Your task to perform on an android device: toggle data saver in the chrome app Image 0: 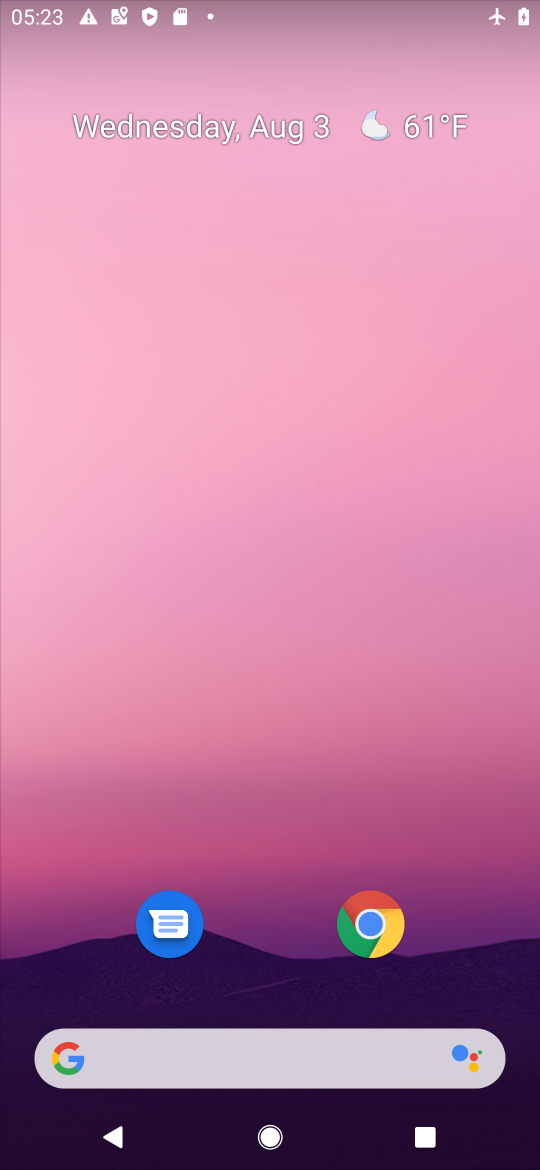
Step 0: click (365, 913)
Your task to perform on an android device: toggle data saver in the chrome app Image 1: 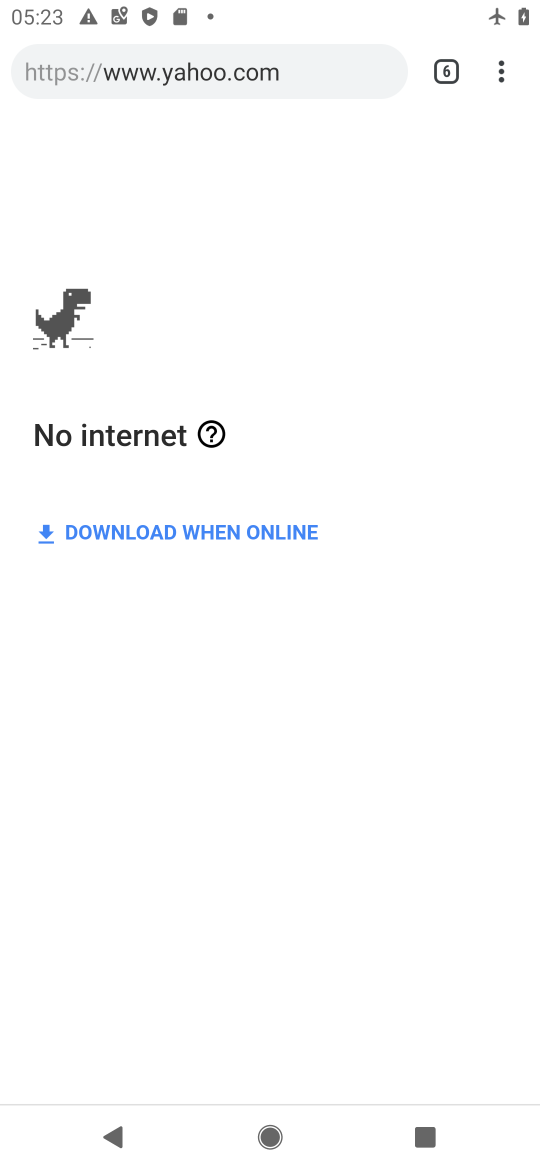
Step 1: click (495, 77)
Your task to perform on an android device: toggle data saver in the chrome app Image 2: 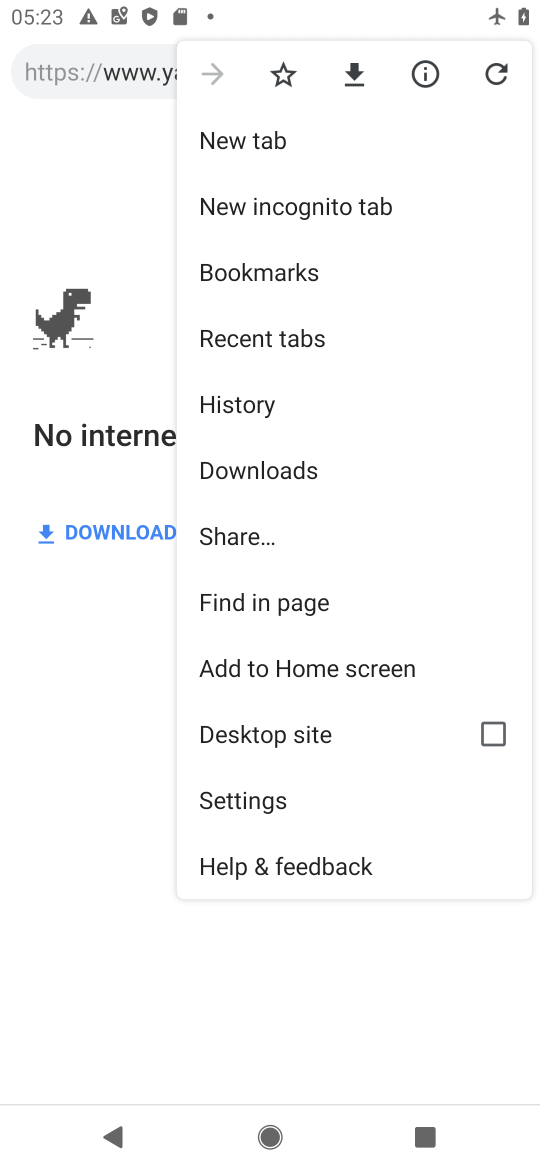
Step 2: click (273, 795)
Your task to perform on an android device: toggle data saver in the chrome app Image 3: 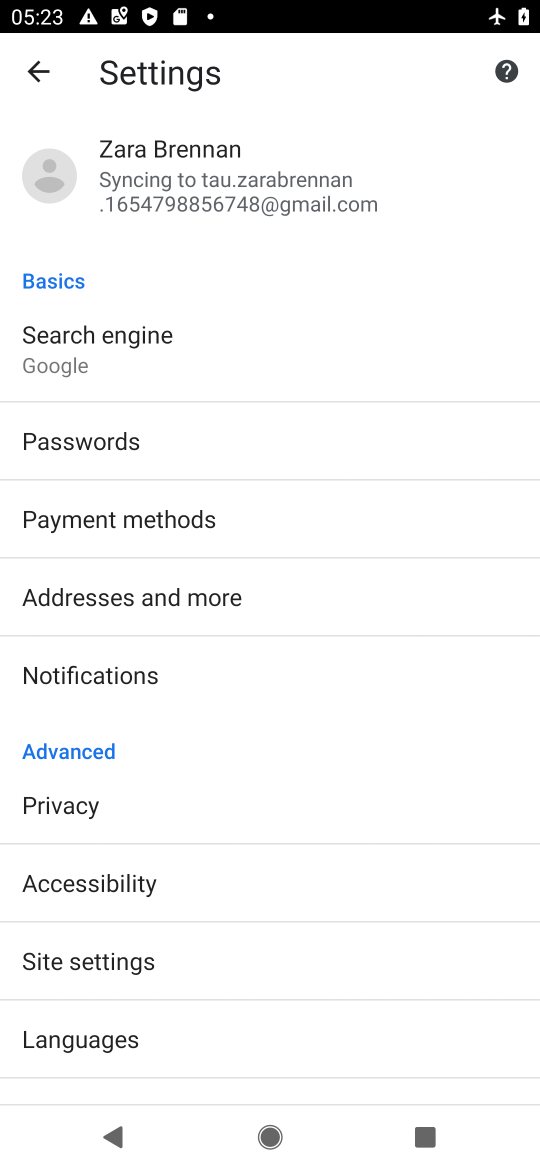
Step 3: drag from (170, 1064) to (173, 634)
Your task to perform on an android device: toggle data saver in the chrome app Image 4: 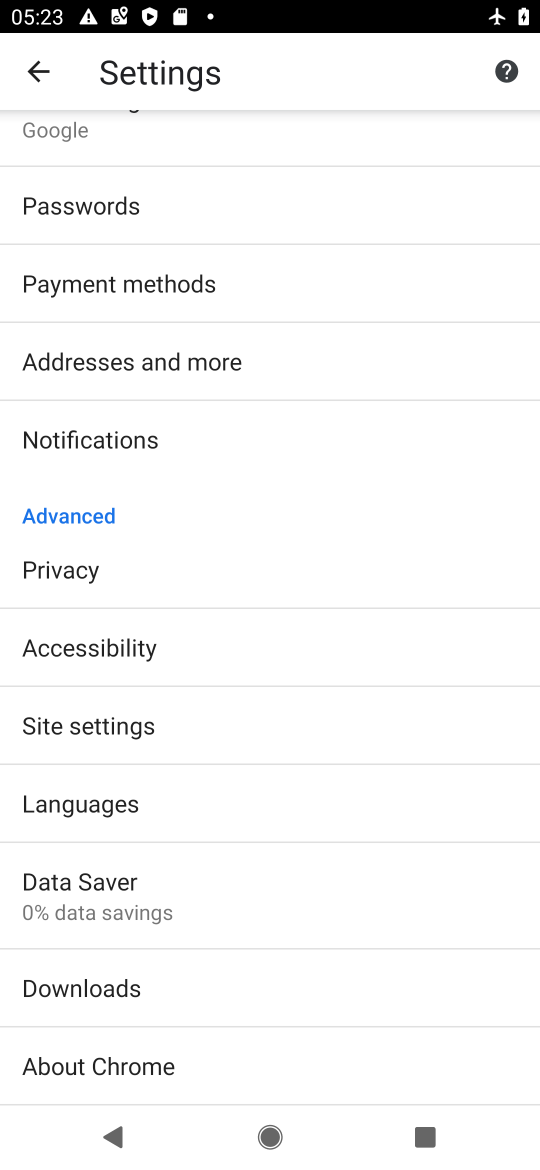
Step 4: click (195, 888)
Your task to perform on an android device: toggle data saver in the chrome app Image 5: 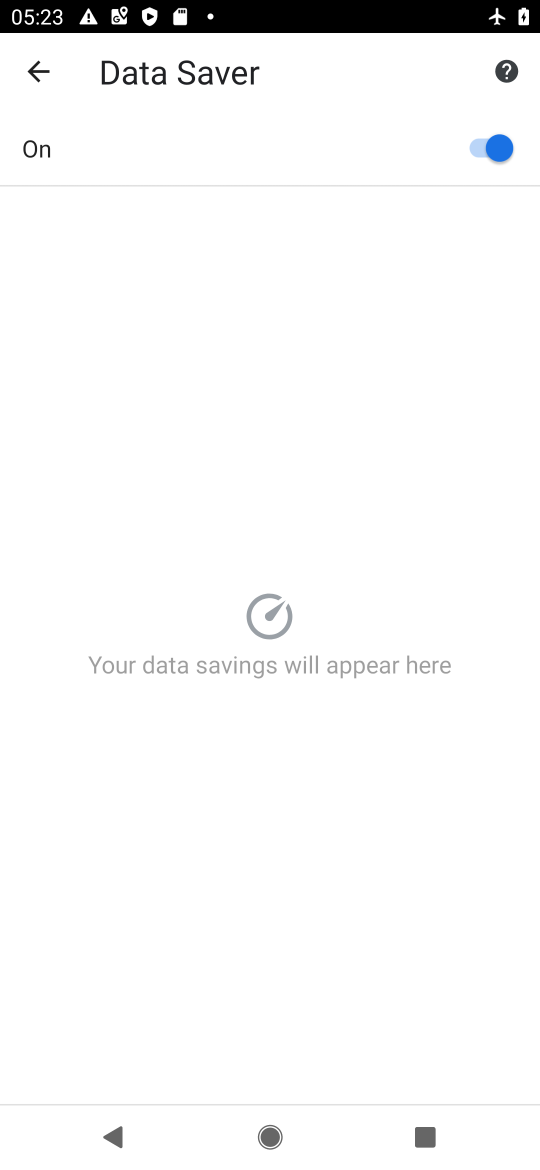
Step 5: click (470, 157)
Your task to perform on an android device: toggle data saver in the chrome app Image 6: 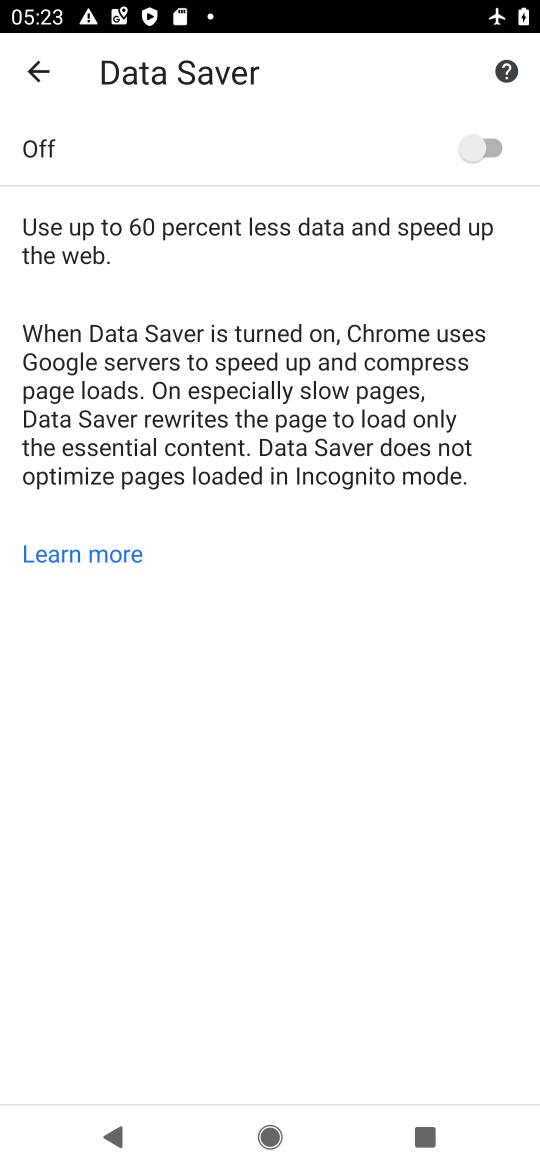
Step 6: task complete